Your task to perform on an android device: turn notification dots off Image 0: 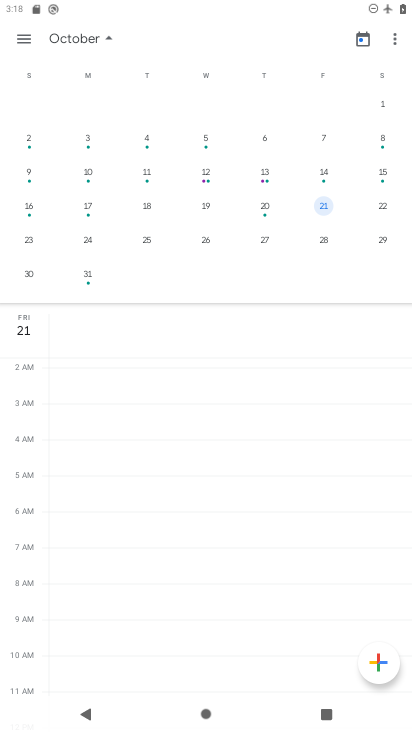
Step 0: press home button
Your task to perform on an android device: turn notification dots off Image 1: 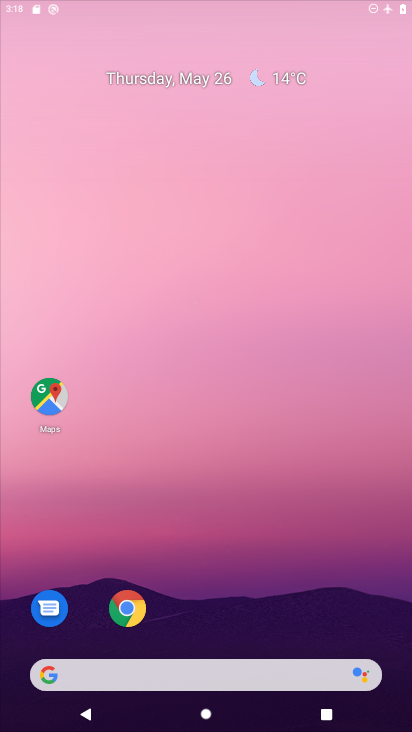
Step 1: drag from (314, 559) to (369, 7)
Your task to perform on an android device: turn notification dots off Image 2: 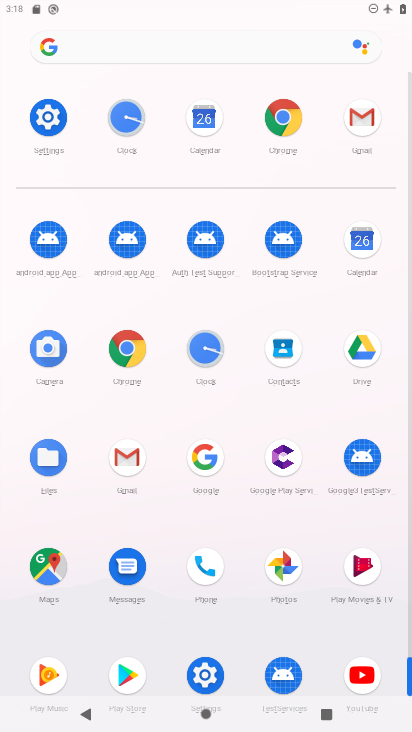
Step 2: click (47, 117)
Your task to perform on an android device: turn notification dots off Image 3: 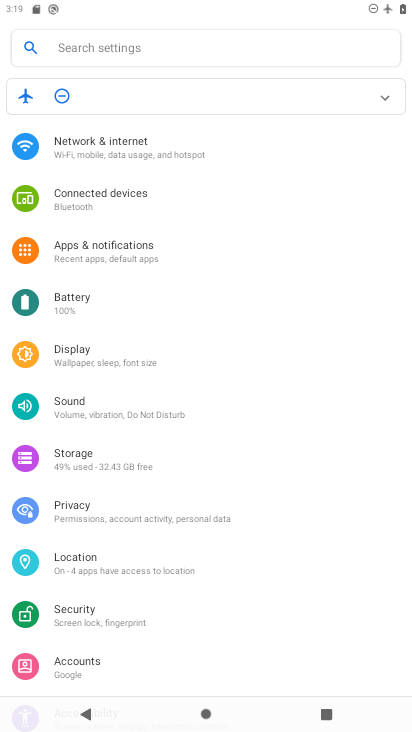
Step 3: click (121, 252)
Your task to perform on an android device: turn notification dots off Image 4: 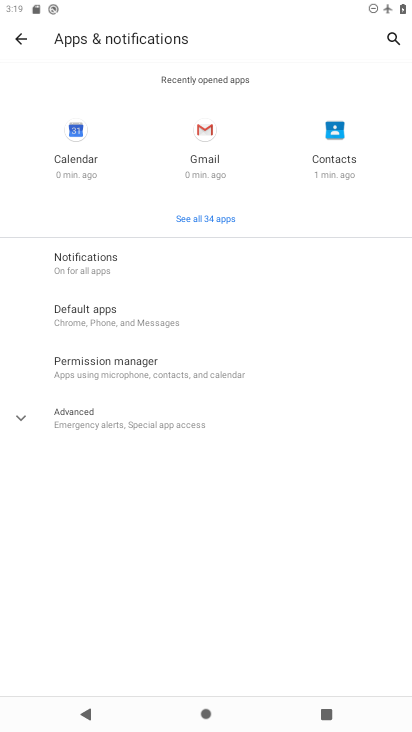
Step 4: click (75, 414)
Your task to perform on an android device: turn notification dots off Image 5: 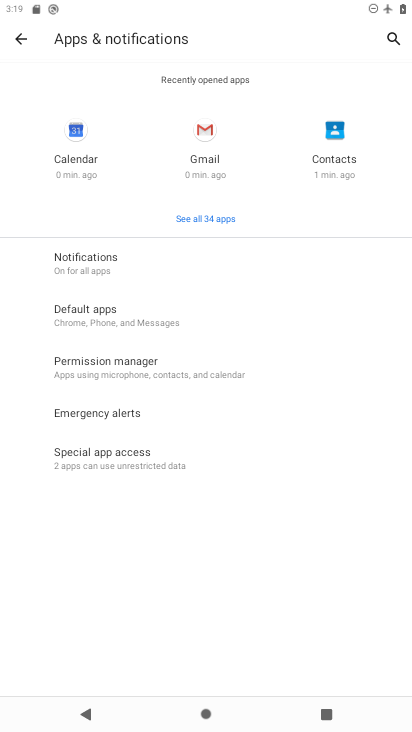
Step 5: drag from (123, 319) to (165, 150)
Your task to perform on an android device: turn notification dots off Image 6: 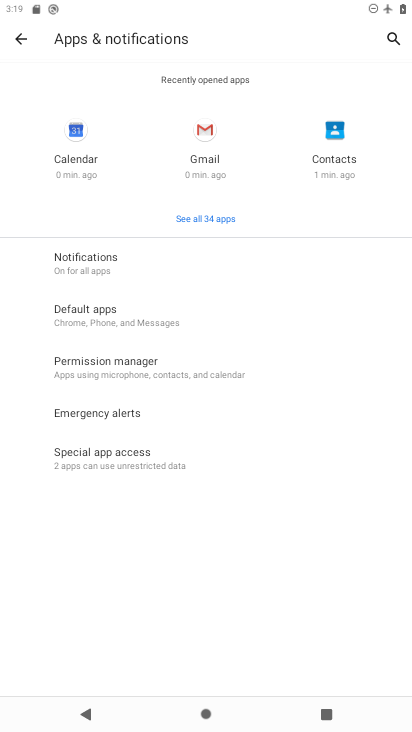
Step 6: click (86, 266)
Your task to perform on an android device: turn notification dots off Image 7: 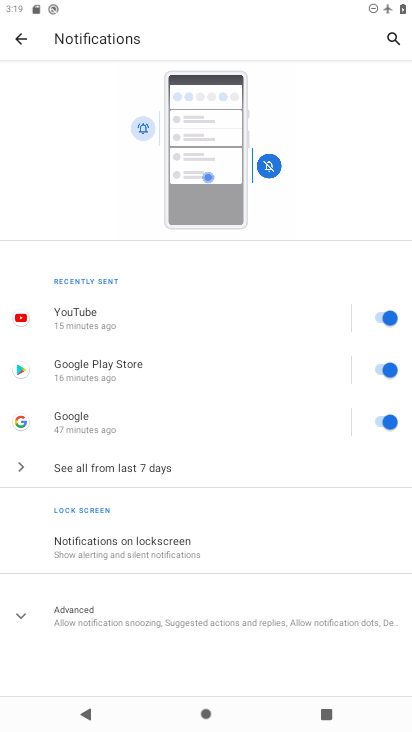
Step 7: drag from (220, 528) to (256, 227)
Your task to perform on an android device: turn notification dots off Image 8: 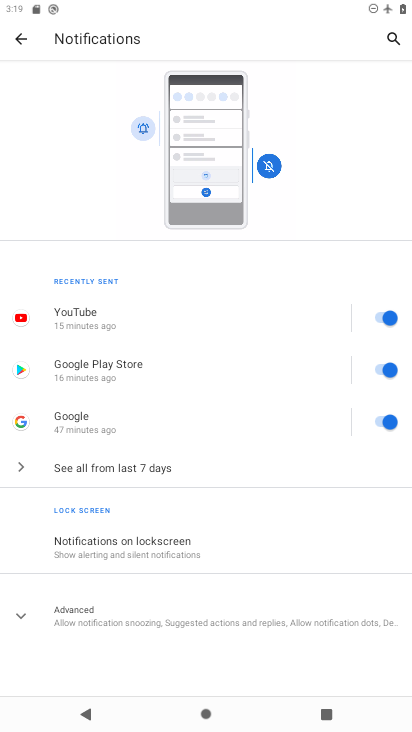
Step 8: click (128, 625)
Your task to perform on an android device: turn notification dots off Image 9: 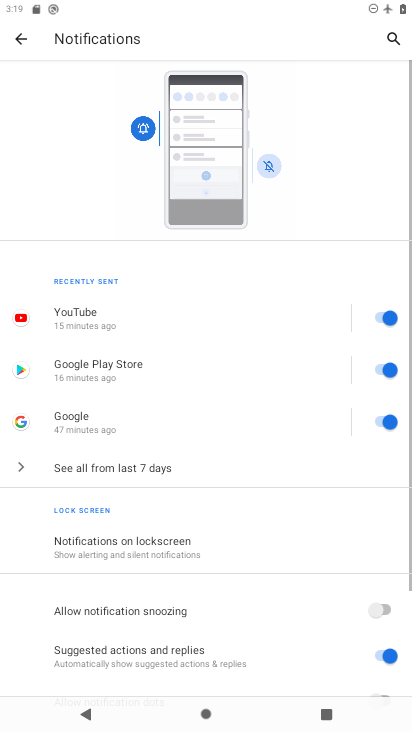
Step 9: task complete